Your task to perform on an android device: clear history in the chrome app Image 0: 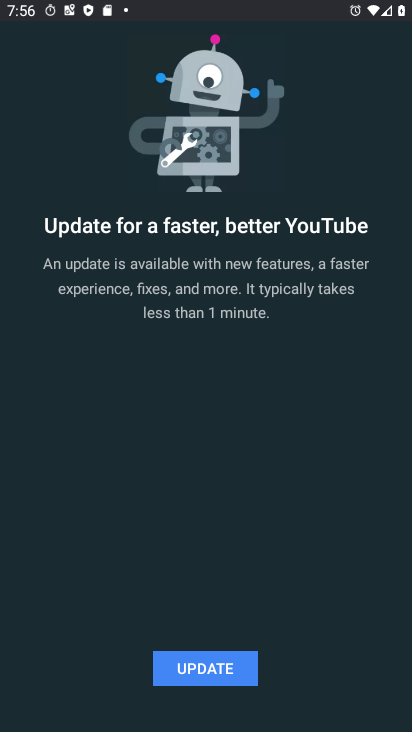
Step 0: press home button
Your task to perform on an android device: clear history in the chrome app Image 1: 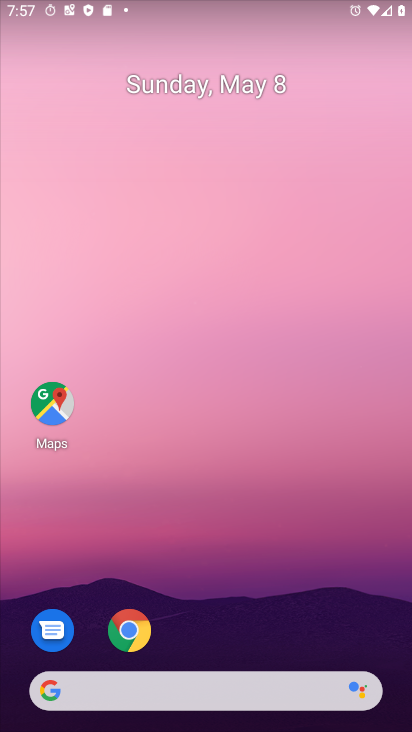
Step 1: drag from (210, 662) to (191, 36)
Your task to perform on an android device: clear history in the chrome app Image 2: 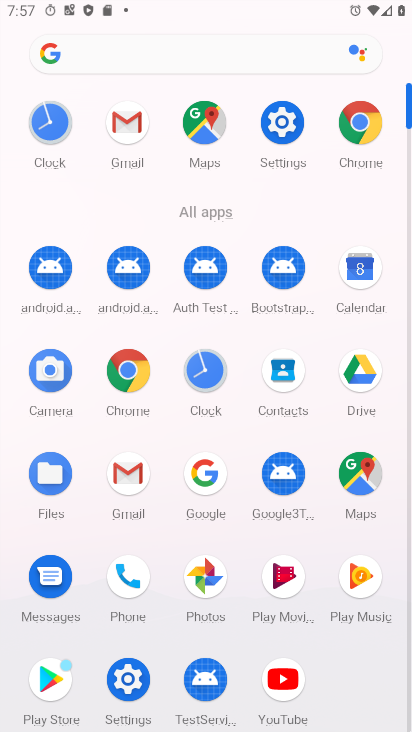
Step 2: click (131, 358)
Your task to perform on an android device: clear history in the chrome app Image 3: 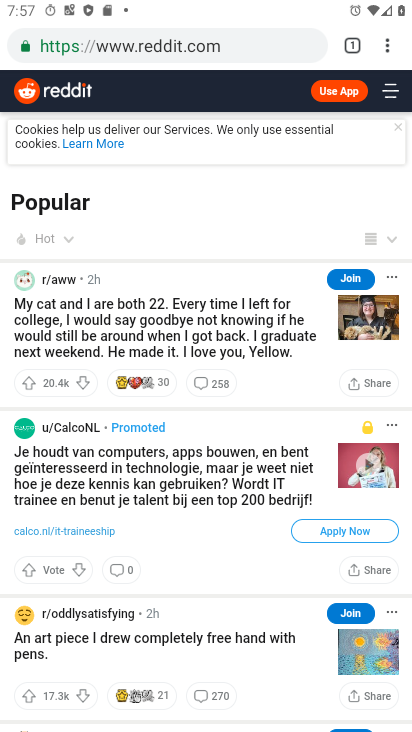
Step 3: click (388, 46)
Your task to perform on an android device: clear history in the chrome app Image 4: 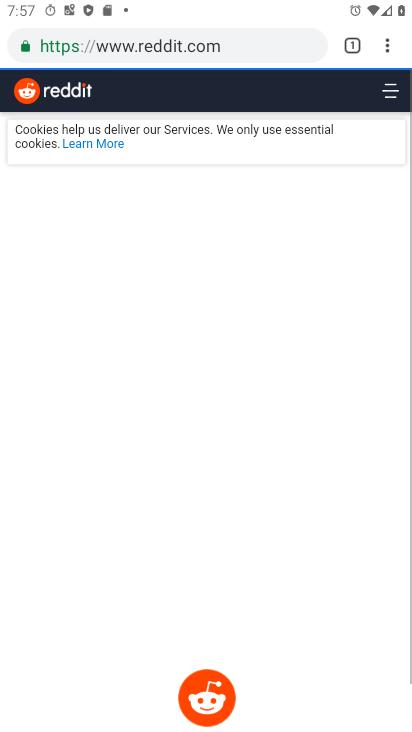
Step 4: click (381, 50)
Your task to perform on an android device: clear history in the chrome app Image 5: 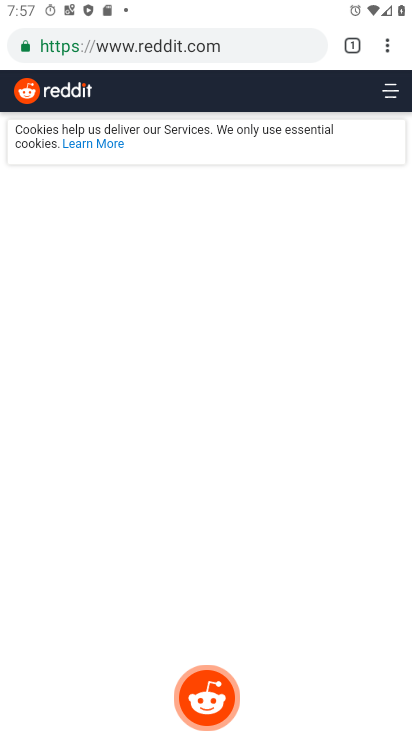
Step 5: drag from (390, 48) to (239, 262)
Your task to perform on an android device: clear history in the chrome app Image 6: 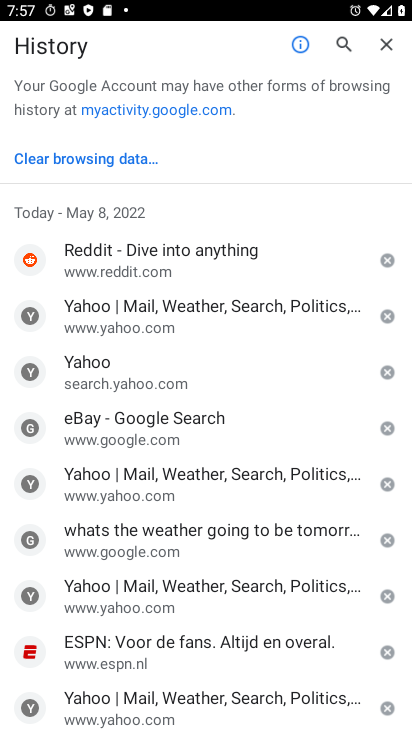
Step 6: click (97, 153)
Your task to perform on an android device: clear history in the chrome app Image 7: 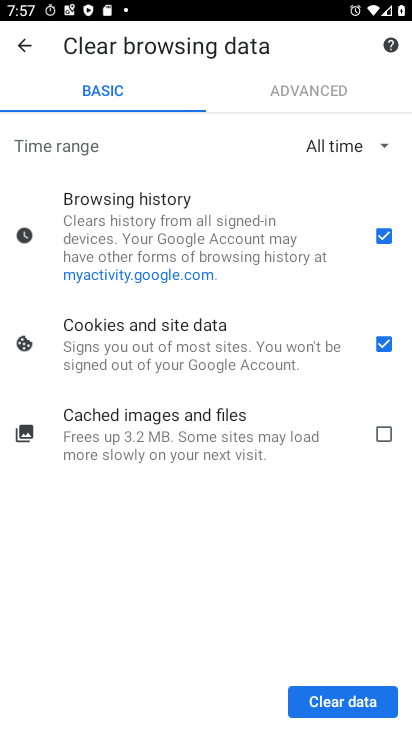
Step 7: click (385, 439)
Your task to perform on an android device: clear history in the chrome app Image 8: 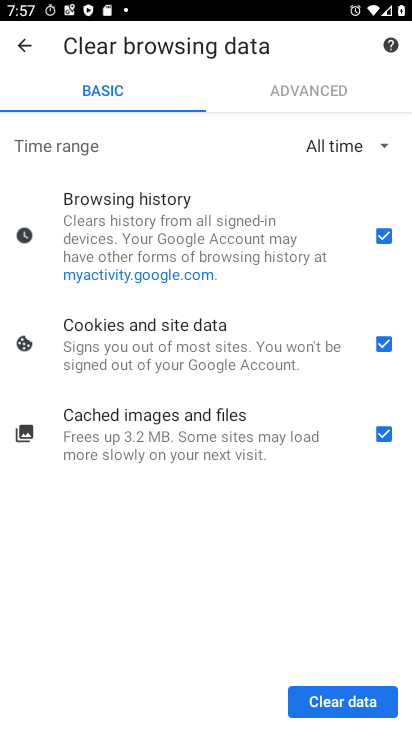
Step 8: click (307, 717)
Your task to perform on an android device: clear history in the chrome app Image 9: 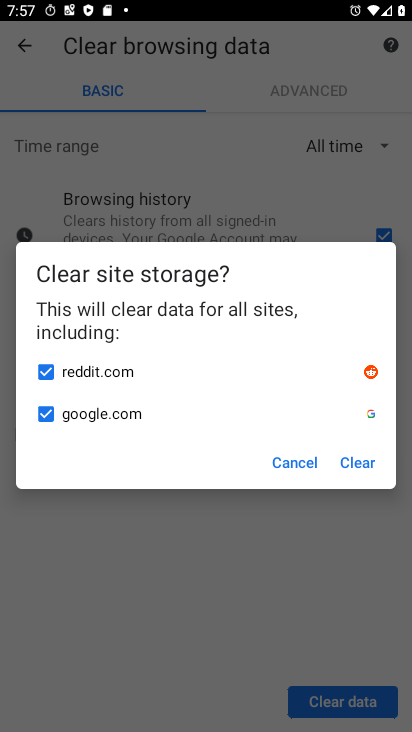
Step 9: click (361, 471)
Your task to perform on an android device: clear history in the chrome app Image 10: 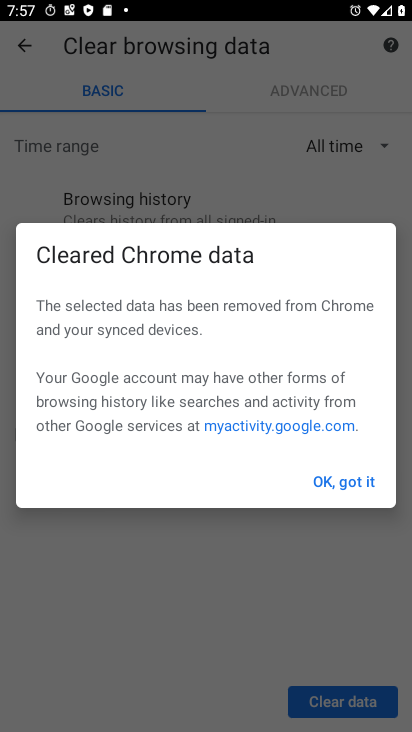
Step 10: click (357, 475)
Your task to perform on an android device: clear history in the chrome app Image 11: 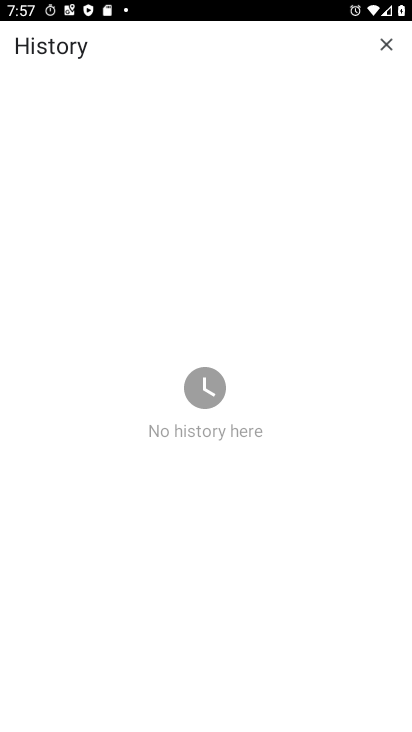
Step 11: task complete